Your task to perform on an android device: delete location history Image 0: 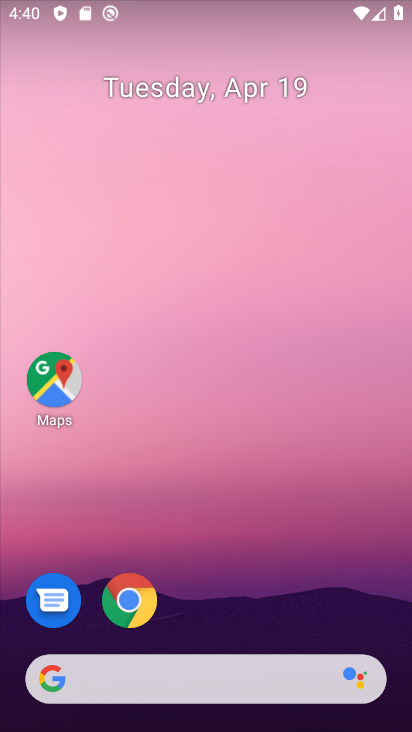
Step 0: drag from (254, 629) to (175, 36)
Your task to perform on an android device: delete location history Image 1: 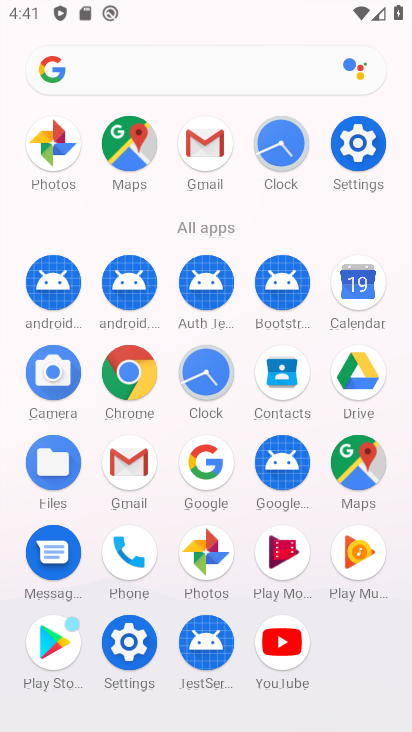
Step 1: click (353, 140)
Your task to perform on an android device: delete location history Image 2: 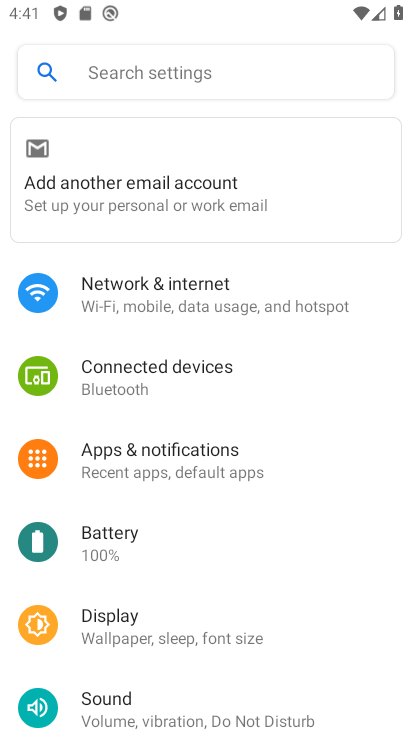
Step 2: drag from (197, 532) to (162, 10)
Your task to perform on an android device: delete location history Image 3: 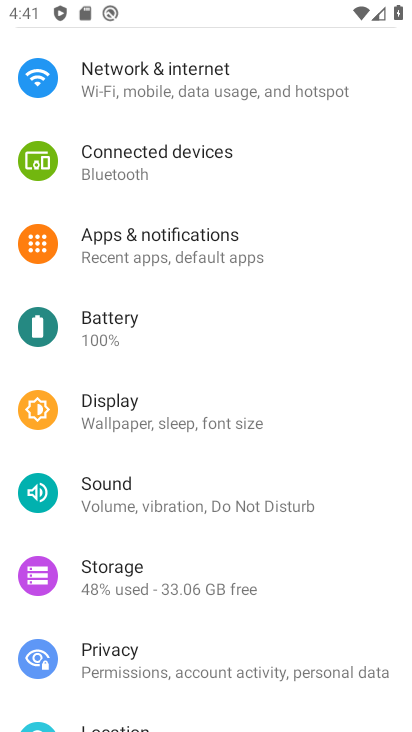
Step 3: drag from (247, 652) to (199, 135)
Your task to perform on an android device: delete location history Image 4: 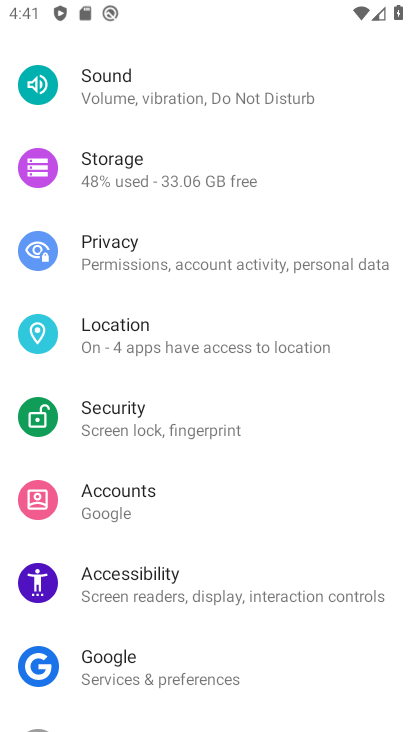
Step 4: click (128, 321)
Your task to perform on an android device: delete location history Image 5: 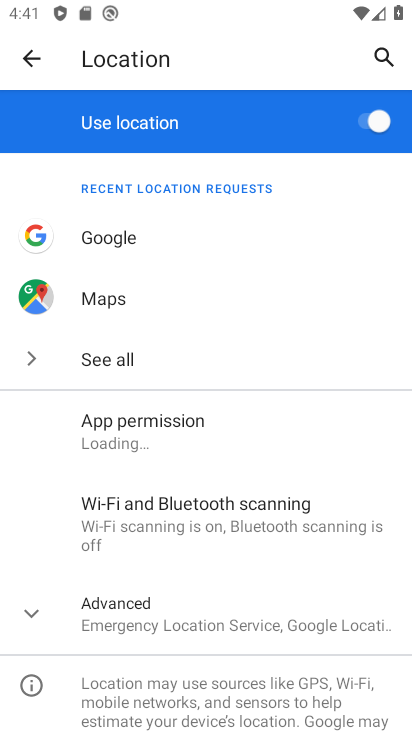
Step 5: drag from (261, 578) to (227, 240)
Your task to perform on an android device: delete location history Image 6: 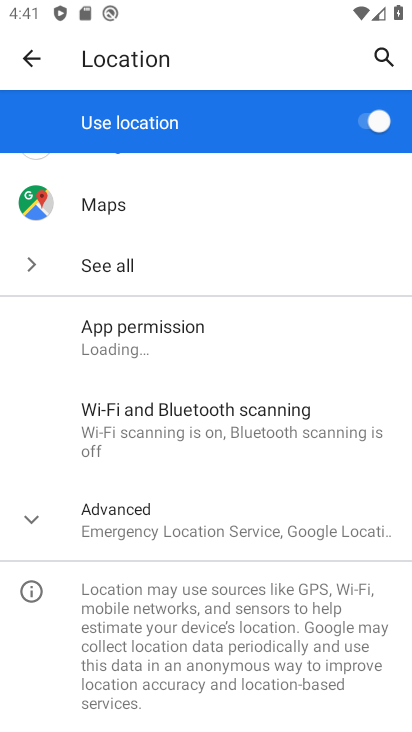
Step 6: click (169, 524)
Your task to perform on an android device: delete location history Image 7: 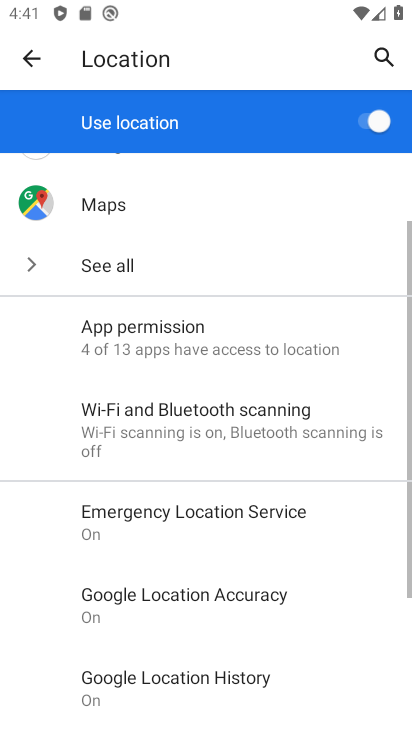
Step 7: drag from (199, 652) to (109, 219)
Your task to perform on an android device: delete location history Image 8: 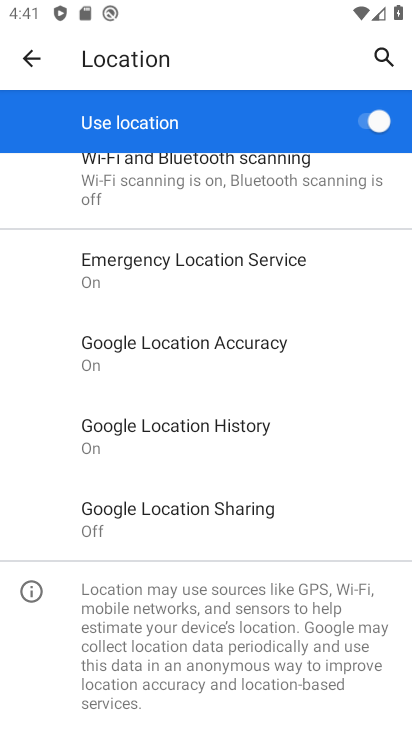
Step 8: click (138, 421)
Your task to perform on an android device: delete location history Image 9: 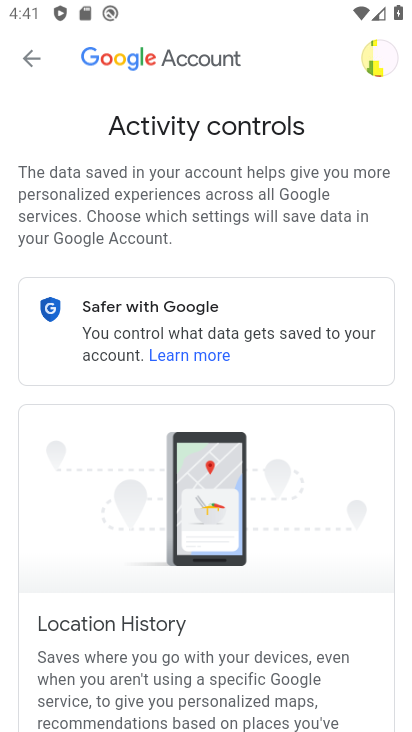
Step 9: drag from (279, 682) to (162, 180)
Your task to perform on an android device: delete location history Image 10: 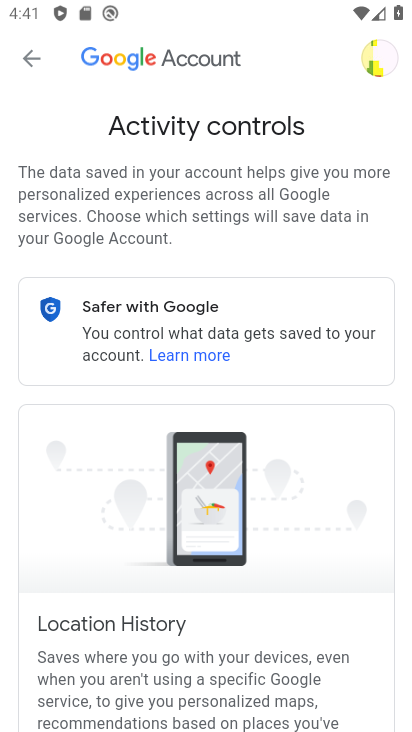
Step 10: drag from (252, 616) to (190, 94)
Your task to perform on an android device: delete location history Image 11: 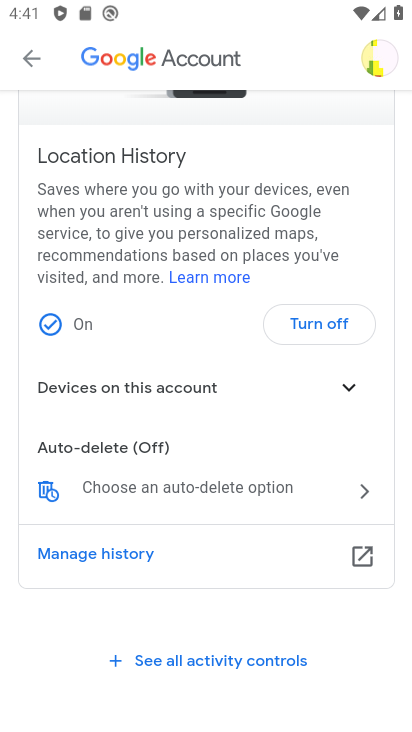
Step 11: click (365, 491)
Your task to perform on an android device: delete location history Image 12: 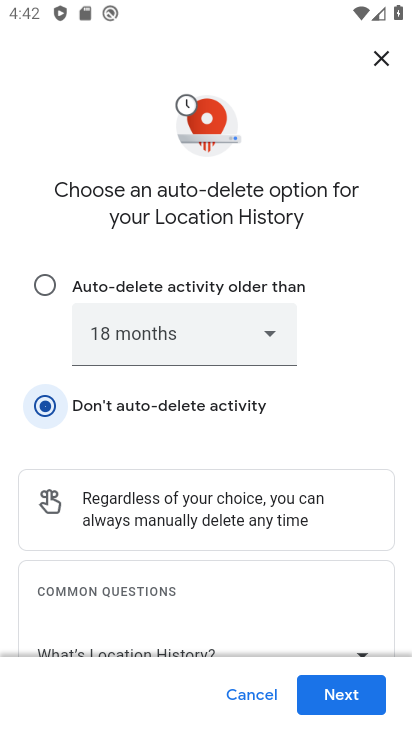
Step 12: click (356, 689)
Your task to perform on an android device: delete location history Image 13: 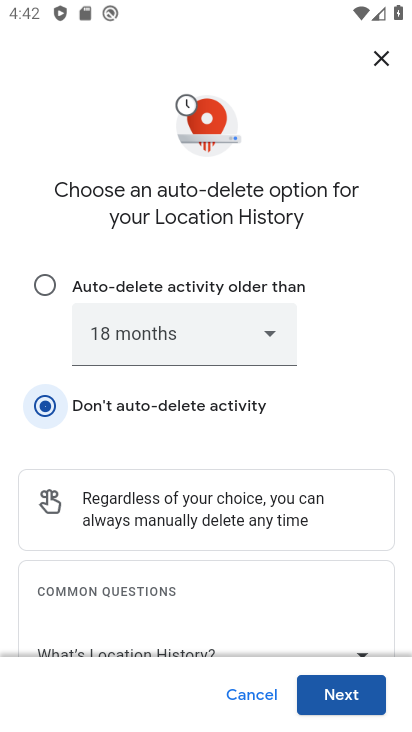
Step 13: click (355, 694)
Your task to perform on an android device: delete location history Image 14: 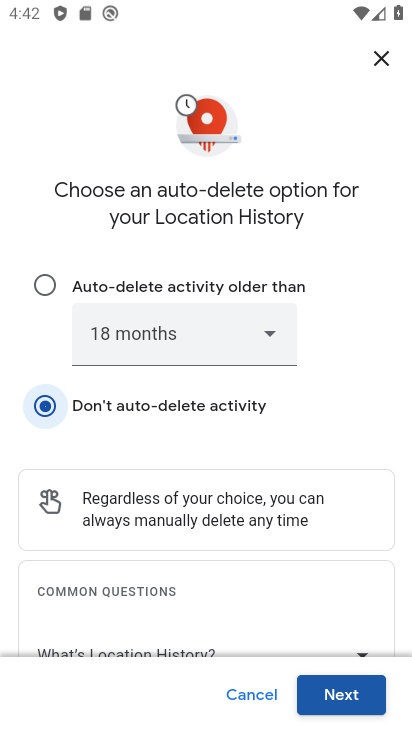
Step 14: click (354, 694)
Your task to perform on an android device: delete location history Image 15: 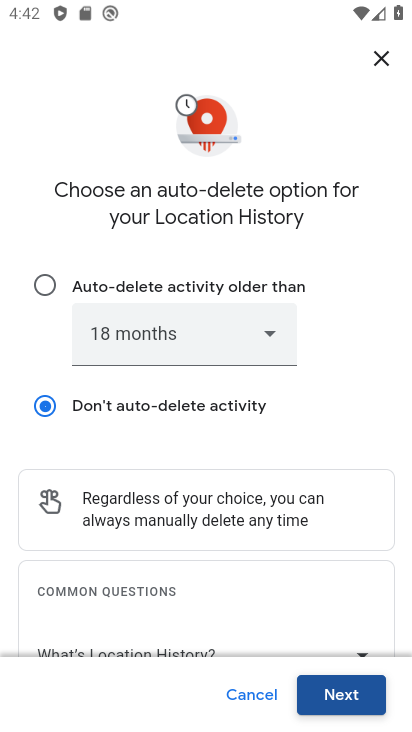
Step 15: click (353, 694)
Your task to perform on an android device: delete location history Image 16: 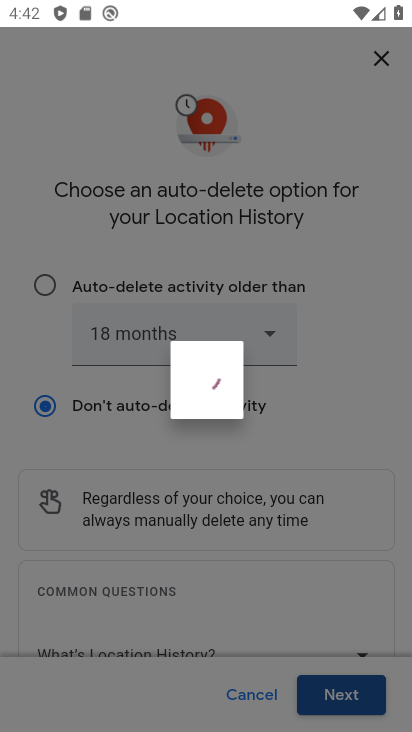
Step 16: click (353, 694)
Your task to perform on an android device: delete location history Image 17: 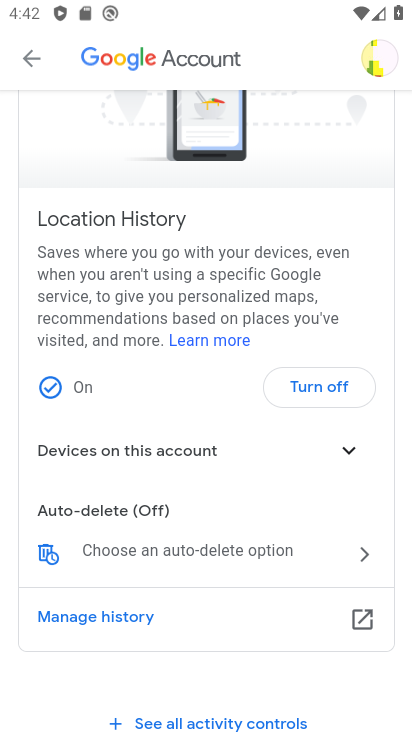
Step 17: task complete